Your task to perform on an android device: check the backup settings in the google photos Image 0: 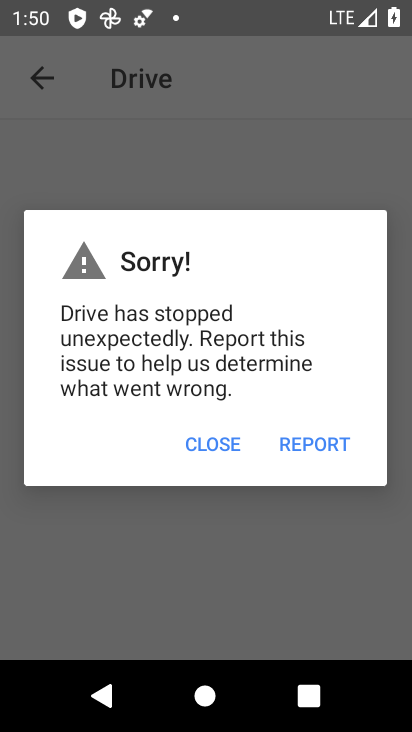
Step 0: drag from (357, 224) to (357, 168)
Your task to perform on an android device: check the backup settings in the google photos Image 1: 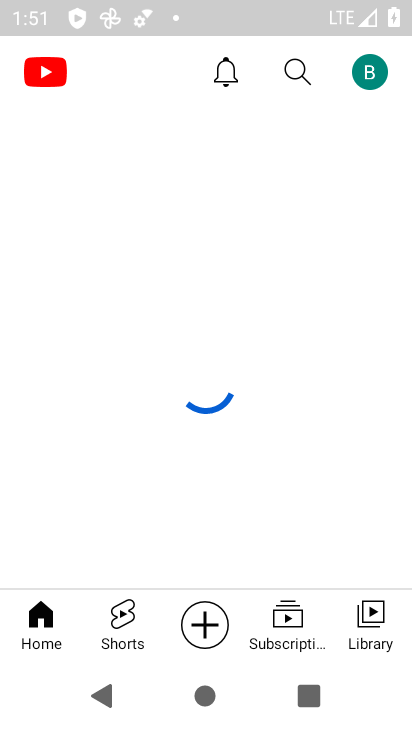
Step 1: press home button
Your task to perform on an android device: check the backup settings in the google photos Image 2: 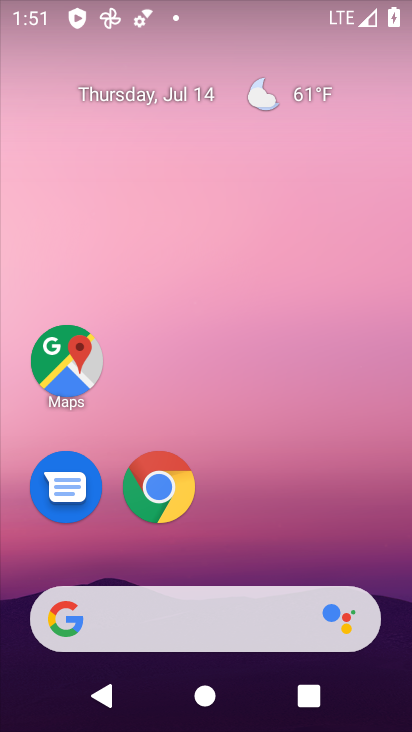
Step 2: drag from (360, 543) to (337, 19)
Your task to perform on an android device: check the backup settings in the google photos Image 3: 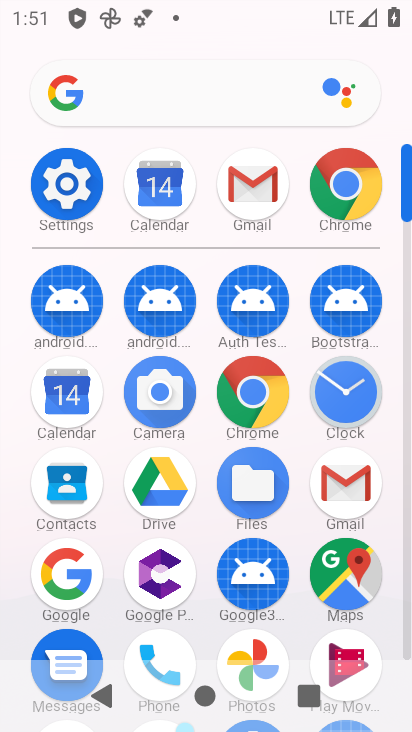
Step 3: drag from (378, 607) to (382, 362)
Your task to perform on an android device: check the backup settings in the google photos Image 4: 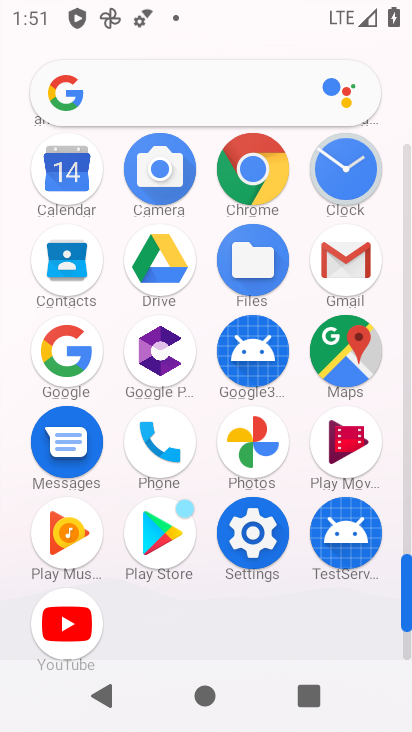
Step 4: click (252, 445)
Your task to perform on an android device: check the backup settings in the google photos Image 5: 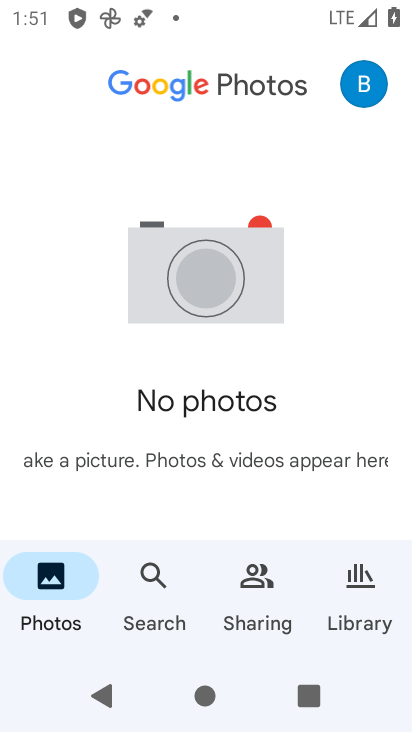
Step 5: click (364, 76)
Your task to perform on an android device: check the backup settings in the google photos Image 6: 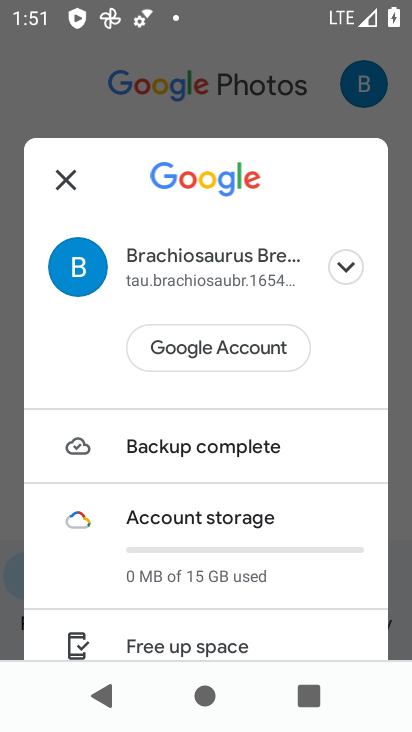
Step 6: drag from (312, 515) to (322, 375)
Your task to perform on an android device: check the backup settings in the google photos Image 7: 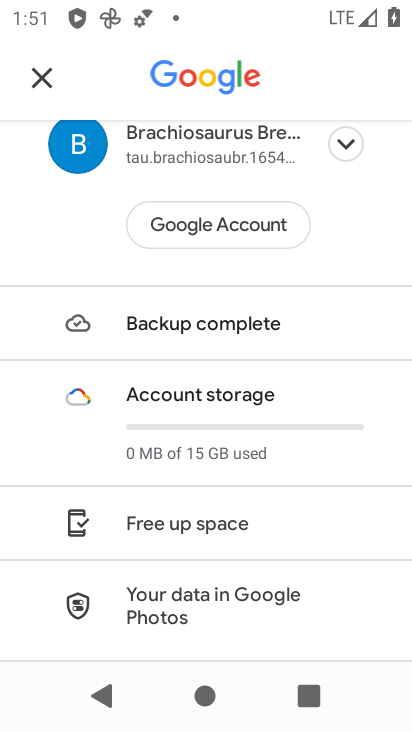
Step 7: drag from (332, 553) to (332, 394)
Your task to perform on an android device: check the backup settings in the google photos Image 8: 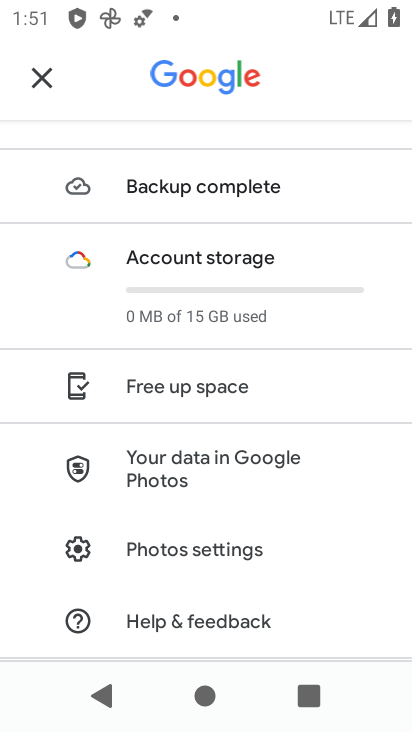
Step 8: click (260, 558)
Your task to perform on an android device: check the backup settings in the google photos Image 9: 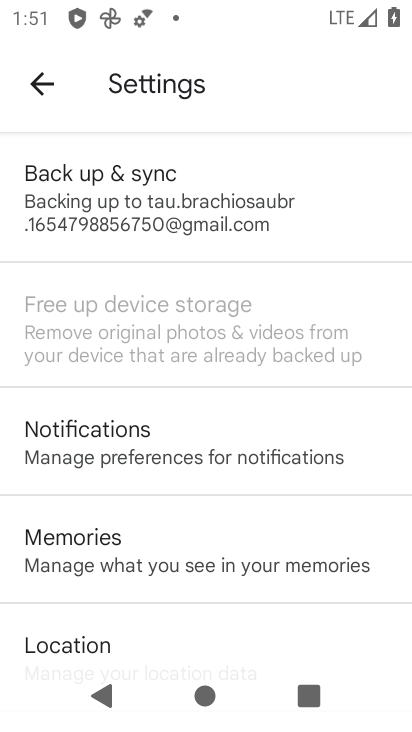
Step 9: drag from (295, 564) to (297, 472)
Your task to perform on an android device: check the backup settings in the google photos Image 10: 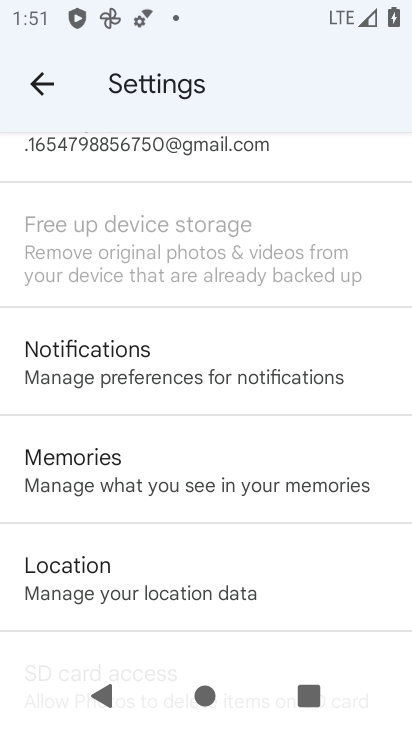
Step 10: drag from (318, 593) to (316, 463)
Your task to perform on an android device: check the backup settings in the google photos Image 11: 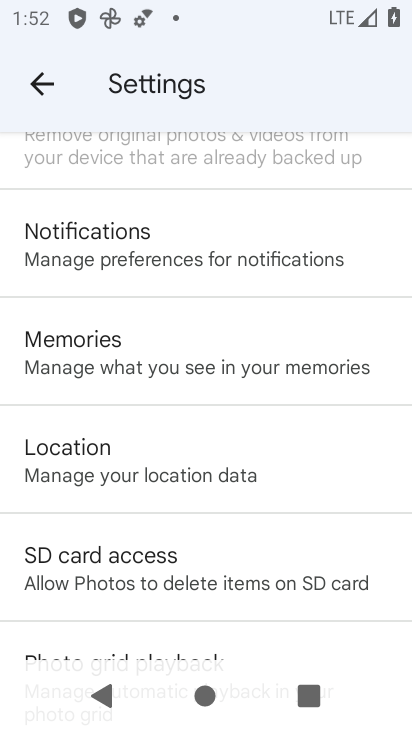
Step 11: drag from (371, 278) to (358, 377)
Your task to perform on an android device: check the backup settings in the google photos Image 12: 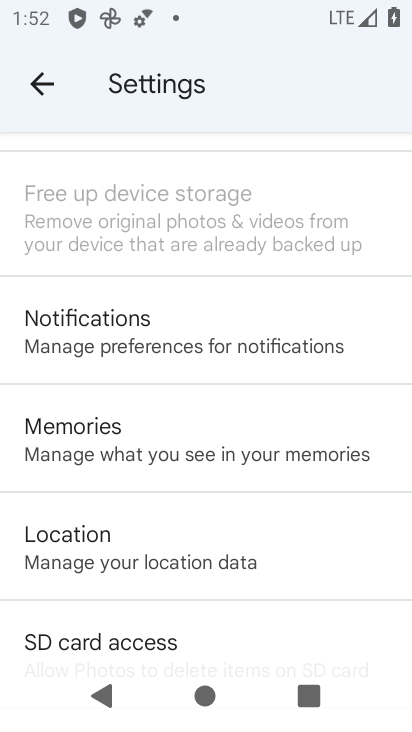
Step 12: drag from (358, 221) to (351, 397)
Your task to perform on an android device: check the backup settings in the google photos Image 13: 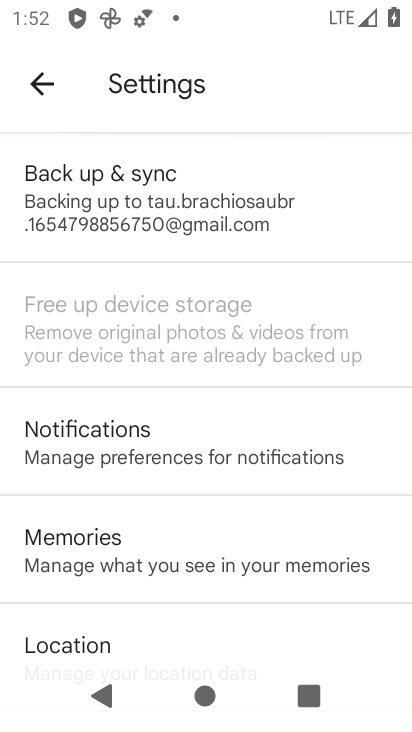
Step 13: click (277, 222)
Your task to perform on an android device: check the backup settings in the google photos Image 14: 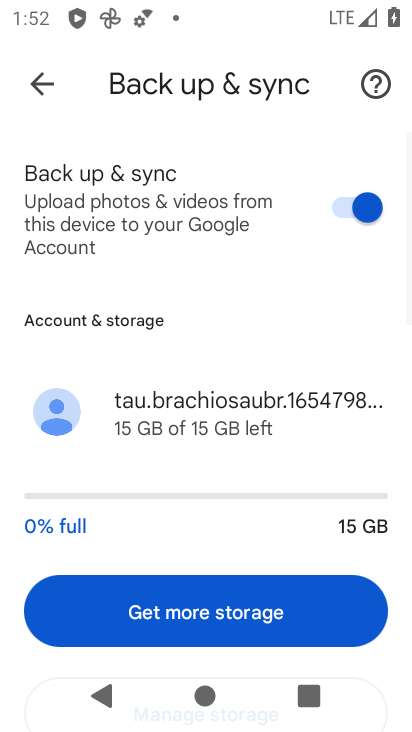
Step 14: task complete